Your task to perform on an android device: Open eBay Image 0: 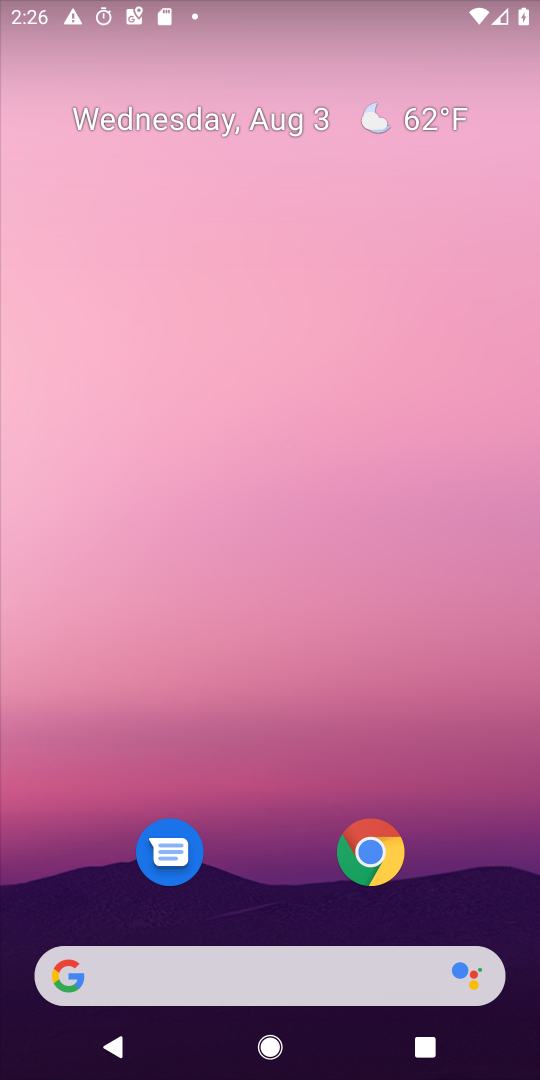
Step 0: drag from (475, 836) to (228, 30)
Your task to perform on an android device: Open eBay Image 1: 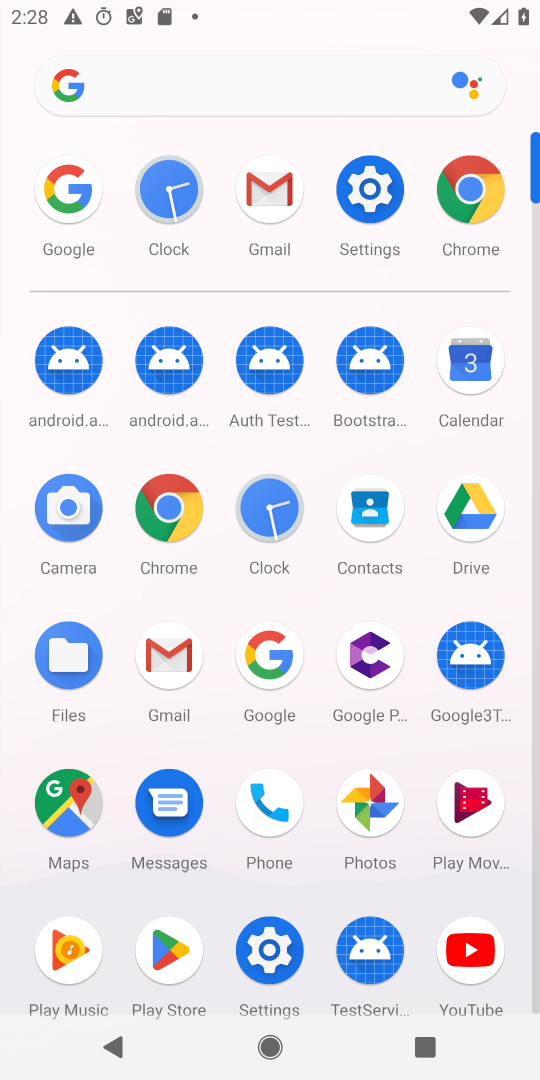
Step 1: click (247, 650)
Your task to perform on an android device: Open eBay Image 2: 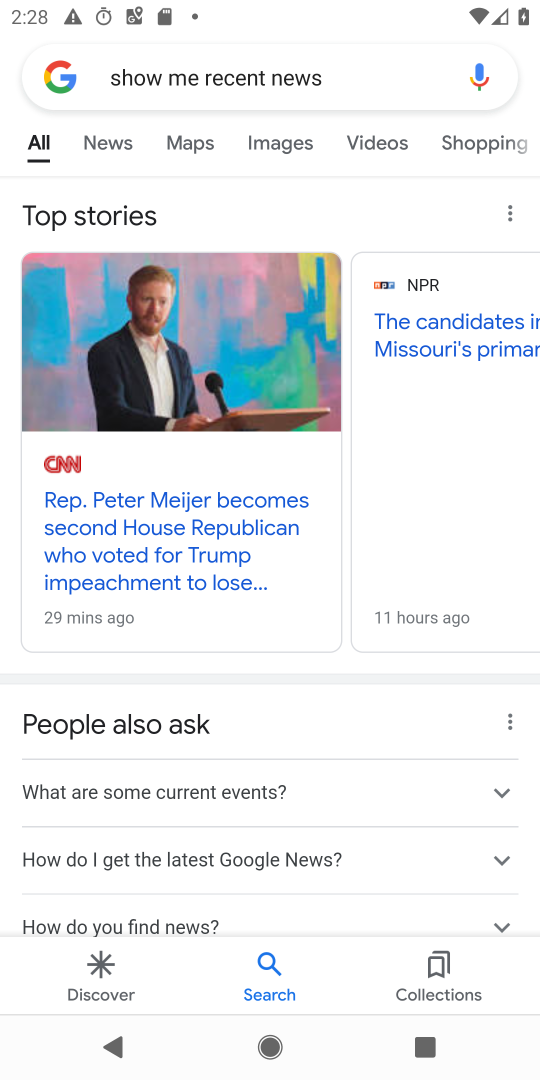
Step 2: press back button
Your task to perform on an android device: Open eBay Image 3: 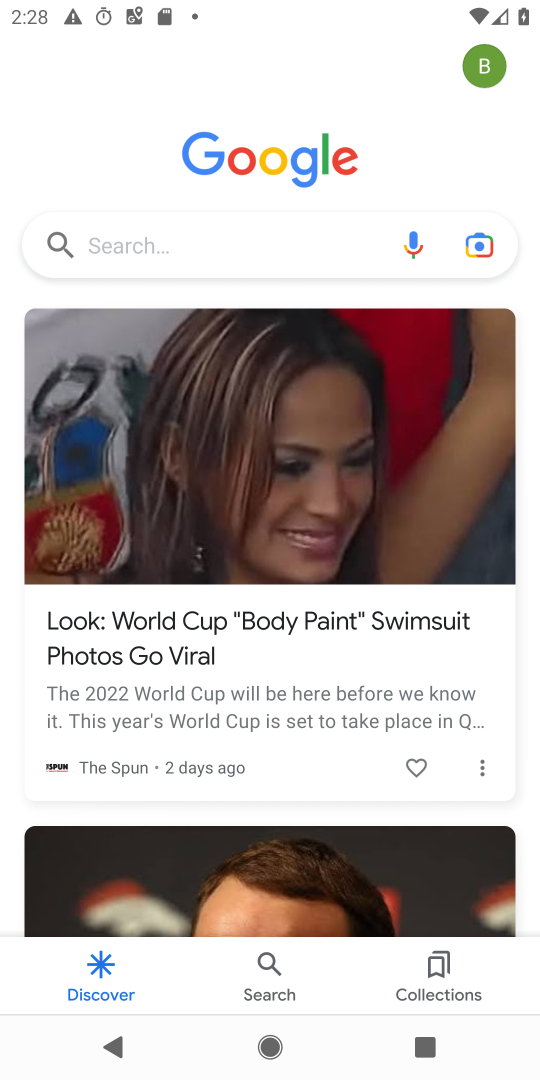
Step 3: click (160, 240)
Your task to perform on an android device: Open eBay Image 4: 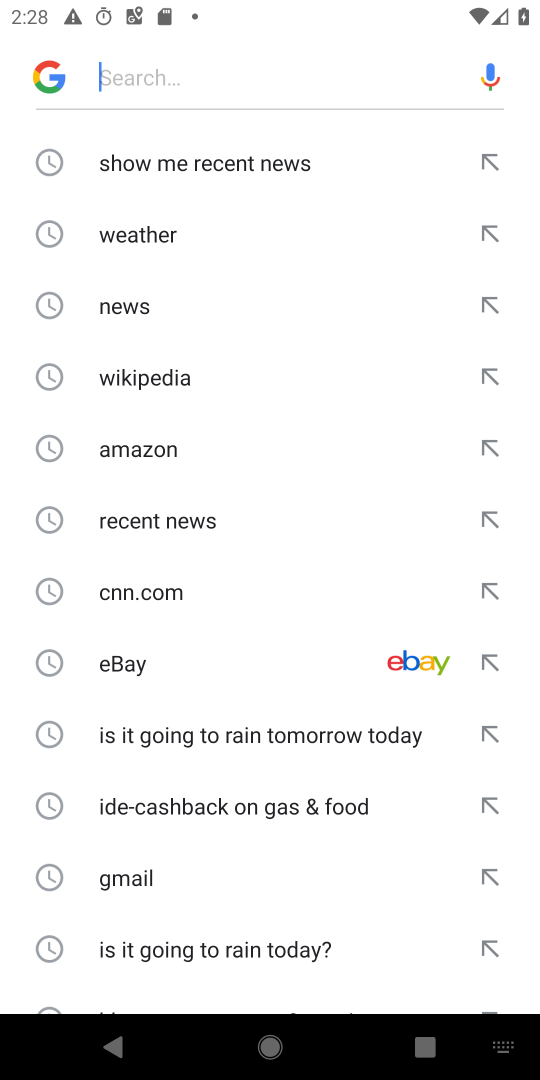
Step 4: click (158, 664)
Your task to perform on an android device: Open eBay Image 5: 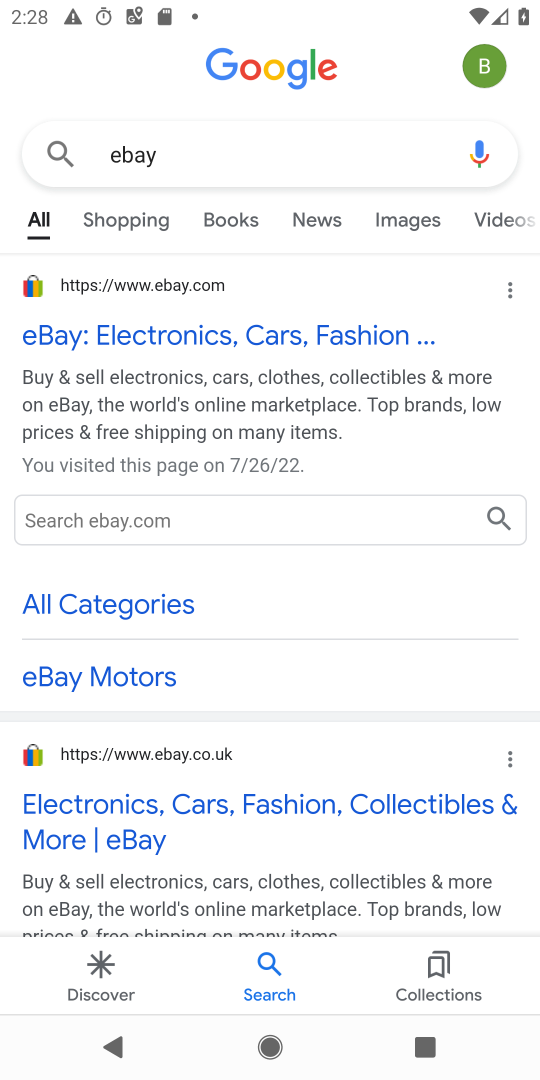
Step 5: task complete